Your task to perform on an android device: turn off translation in the chrome app Image 0: 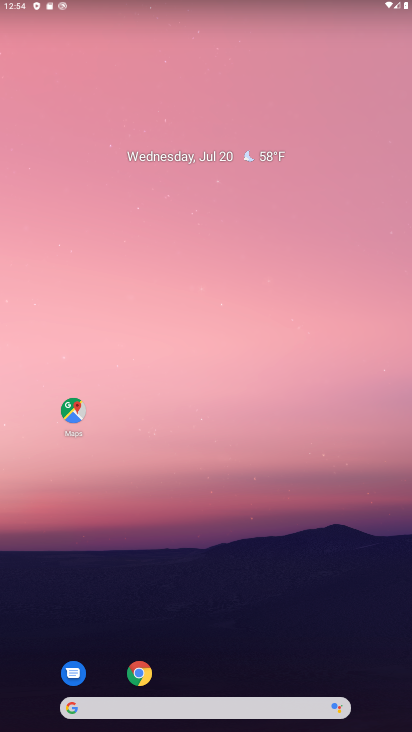
Step 0: click (245, 494)
Your task to perform on an android device: turn off translation in the chrome app Image 1: 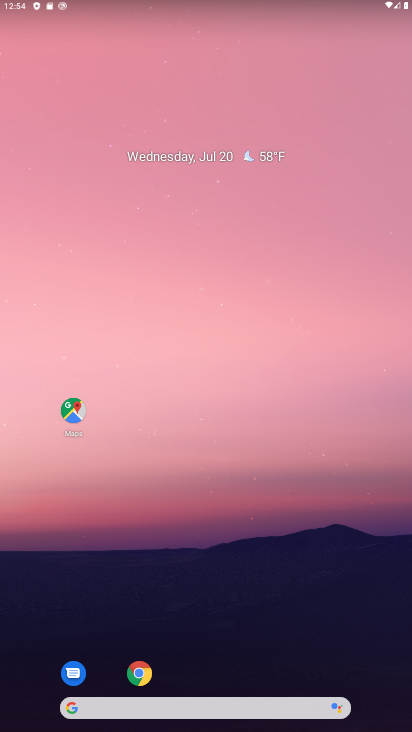
Step 1: click (145, 677)
Your task to perform on an android device: turn off translation in the chrome app Image 2: 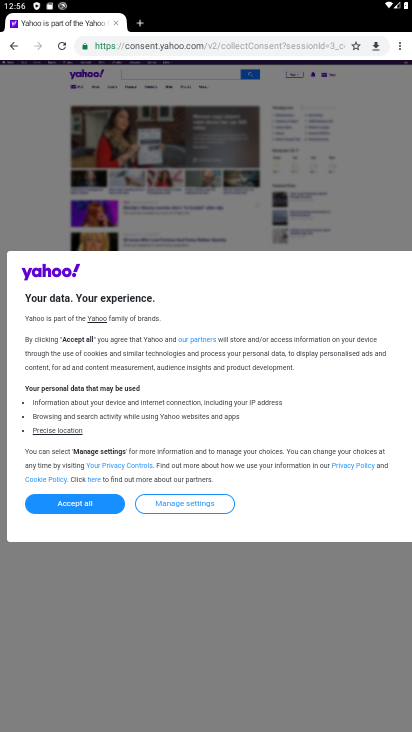
Step 2: click (405, 44)
Your task to perform on an android device: turn off translation in the chrome app Image 3: 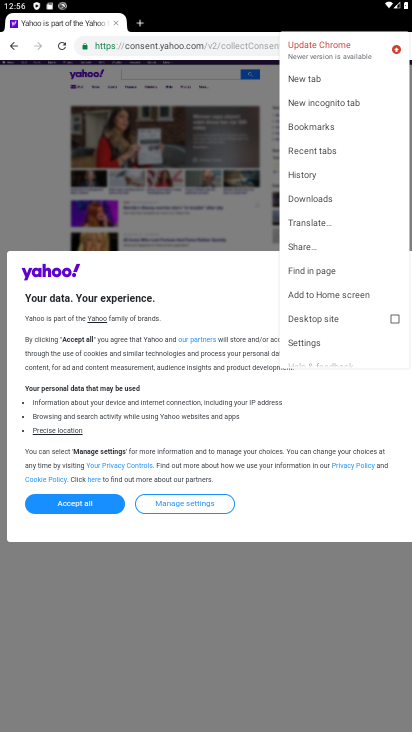
Step 3: click (326, 339)
Your task to perform on an android device: turn off translation in the chrome app Image 4: 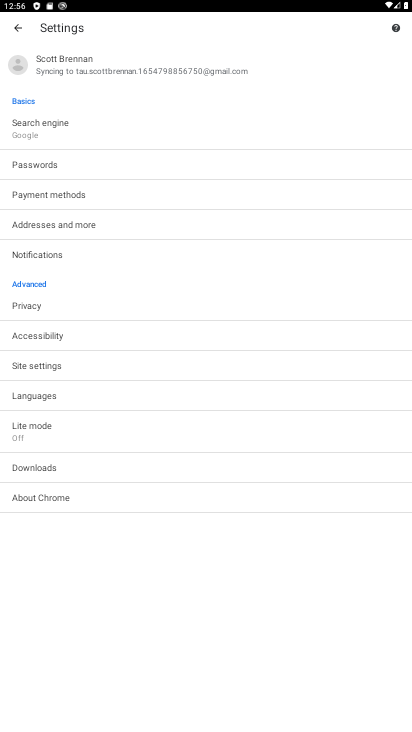
Step 4: click (101, 395)
Your task to perform on an android device: turn off translation in the chrome app Image 5: 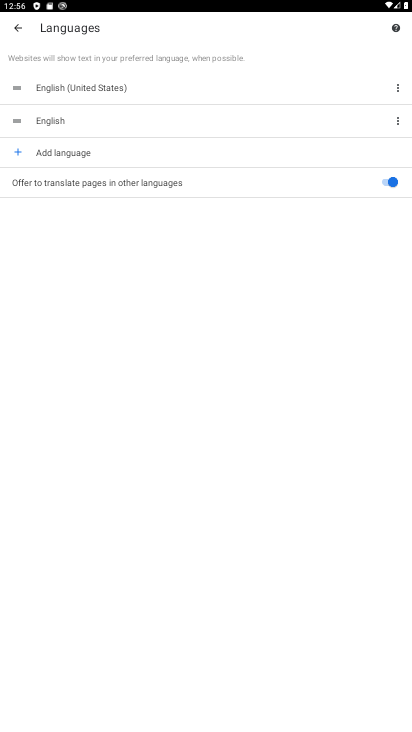
Step 5: click (387, 183)
Your task to perform on an android device: turn off translation in the chrome app Image 6: 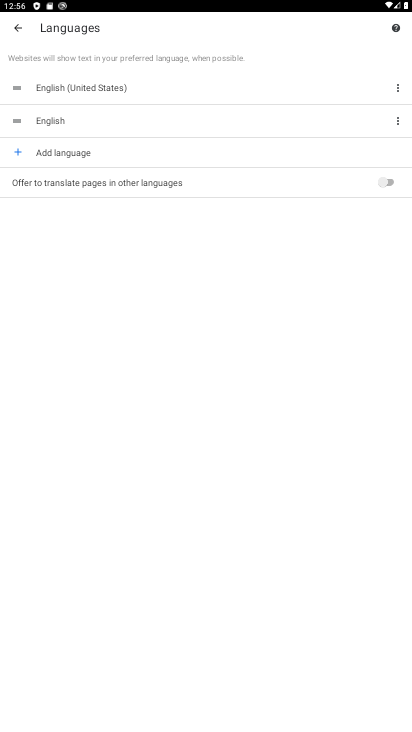
Step 6: task complete